Your task to perform on an android device: Go to accessibility settings Image 0: 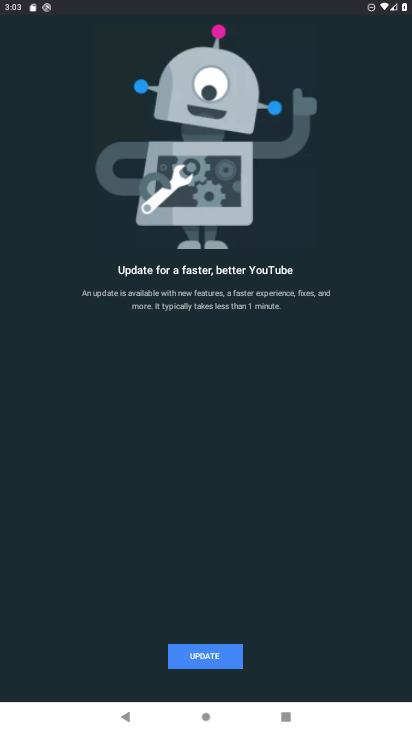
Step 0: press home button
Your task to perform on an android device: Go to accessibility settings Image 1: 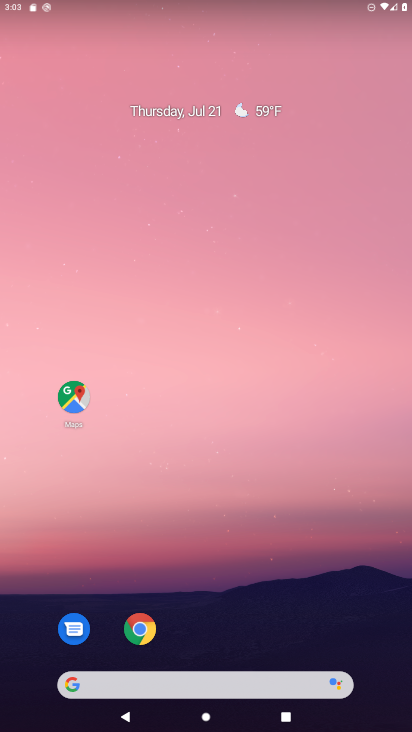
Step 1: drag from (238, 722) to (282, 57)
Your task to perform on an android device: Go to accessibility settings Image 2: 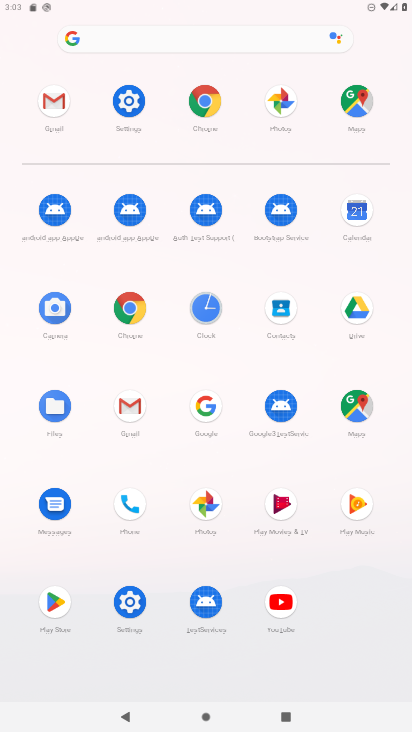
Step 2: click (129, 101)
Your task to perform on an android device: Go to accessibility settings Image 3: 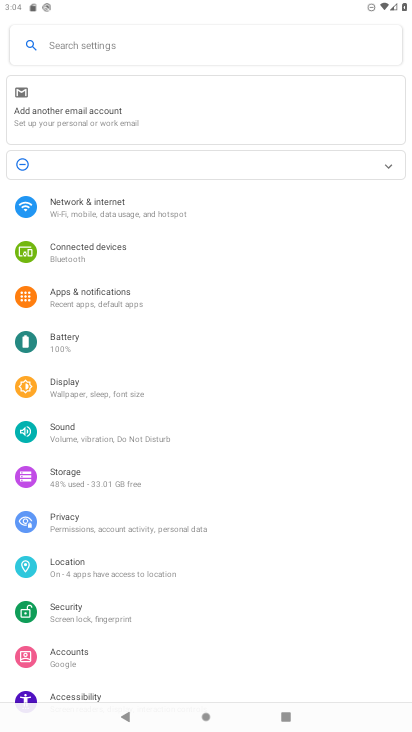
Step 3: click (77, 696)
Your task to perform on an android device: Go to accessibility settings Image 4: 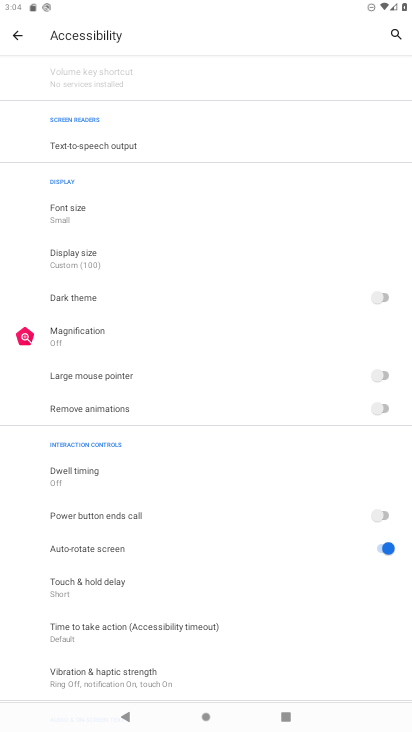
Step 4: task complete